Your task to perform on an android device: turn off wifi Image 0: 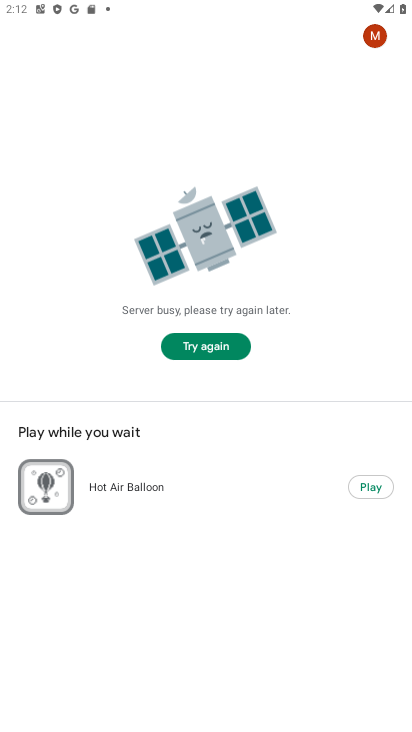
Step 0: press home button
Your task to perform on an android device: turn off wifi Image 1: 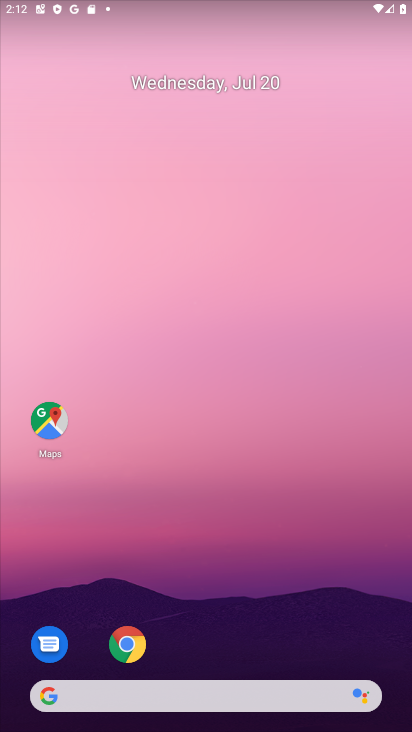
Step 1: drag from (158, 690) to (215, 54)
Your task to perform on an android device: turn off wifi Image 2: 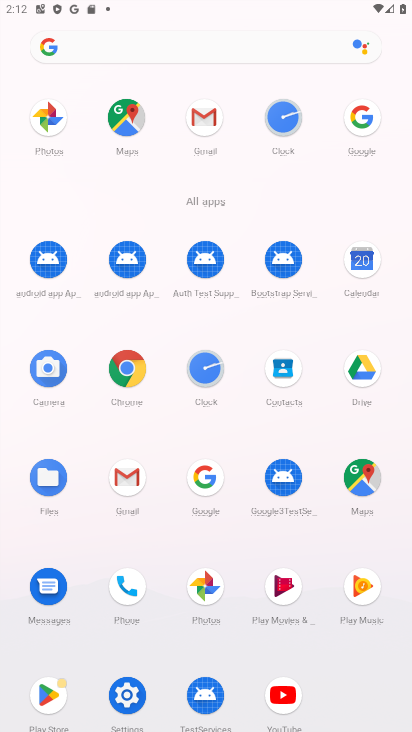
Step 2: click (123, 694)
Your task to perform on an android device: turn off wifi Image 3: 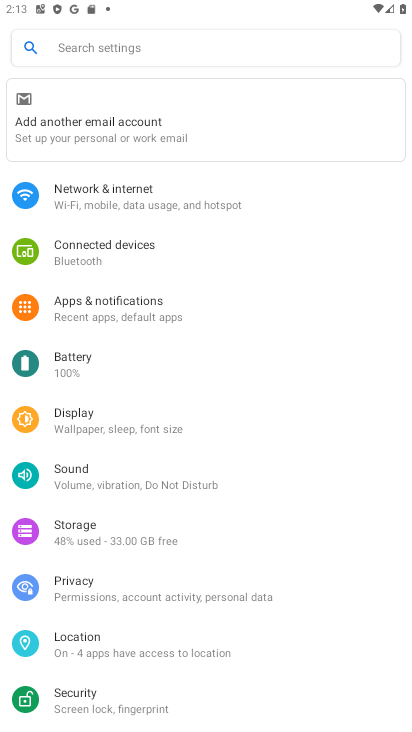
Step 3: click (123, 198)
Your task to perform on an android device: turn off wifi Image 4: 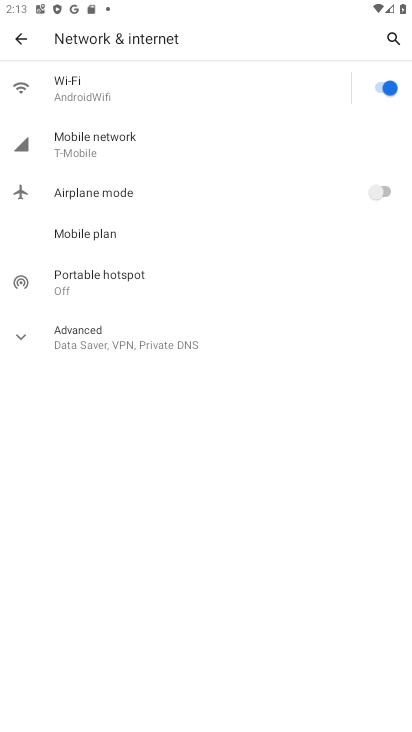
Step 4: click (383, 86)
Your task to perform on an android device: turn off wifi Image 5: 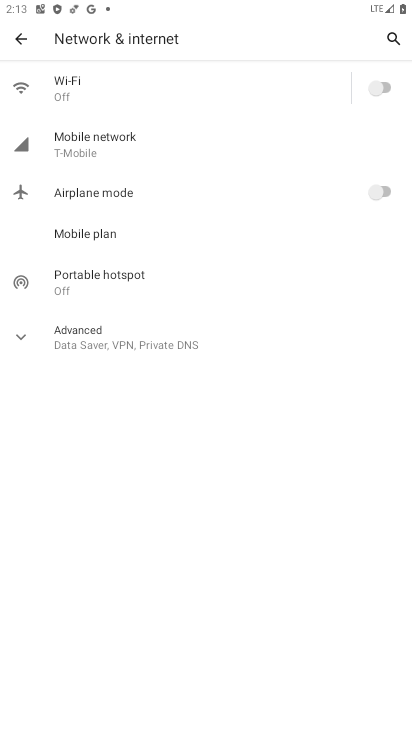
Step 5: task complete